Your task to perform on an android device: Go to sound settings Image 0: 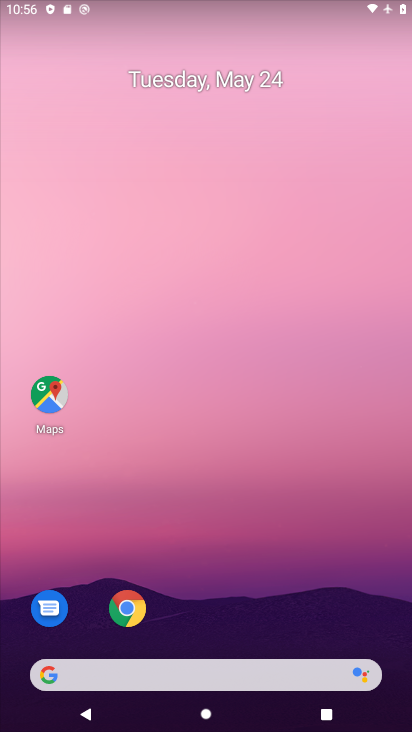
Step 0: drag from (372, 624) to (270, 44)
Your task to perform on an android device: Go to sound settings Image 1: 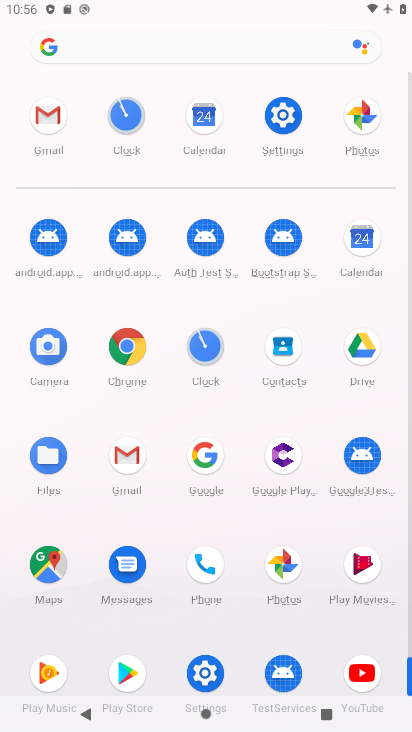
Step 1: click (204, 674)
Your task to perform on an android device: Go to sound settings Image 2: 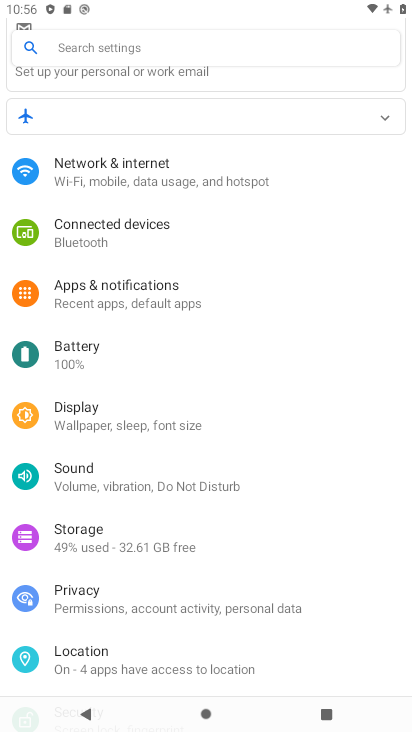
Step 2: click (102, 480)
Your task to perform on an android device: Go to sound settings Image 3: 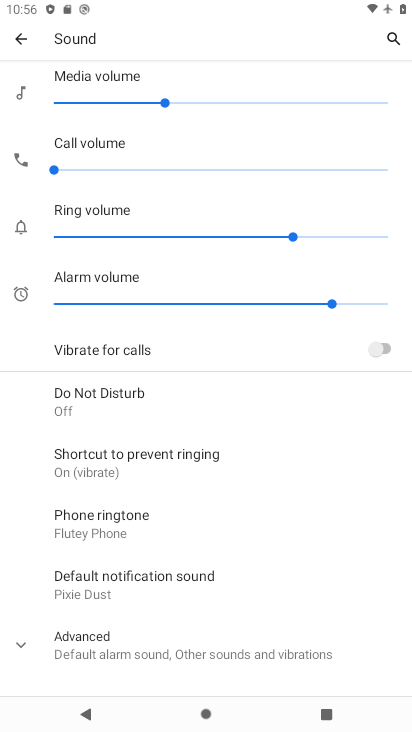
Step 3: drag from (238, 598) to (262, 299)
Your task to perform on an android device: Go to sound settings Image 4: 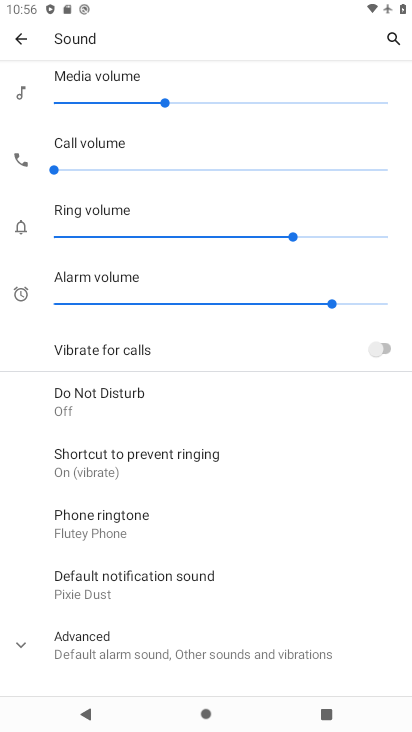
Step 4: click (19, 643)
Your task to perform on an android device: Go to sound settings Image 5: 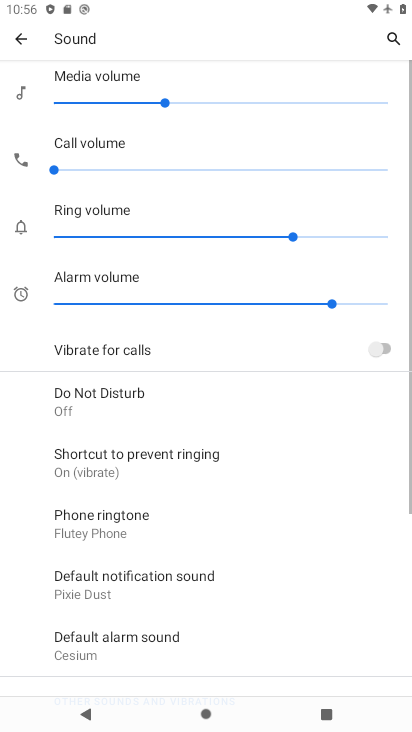
Step 5: task complete